Your task to perform on an android device: Go to Reddit.com Image 0: 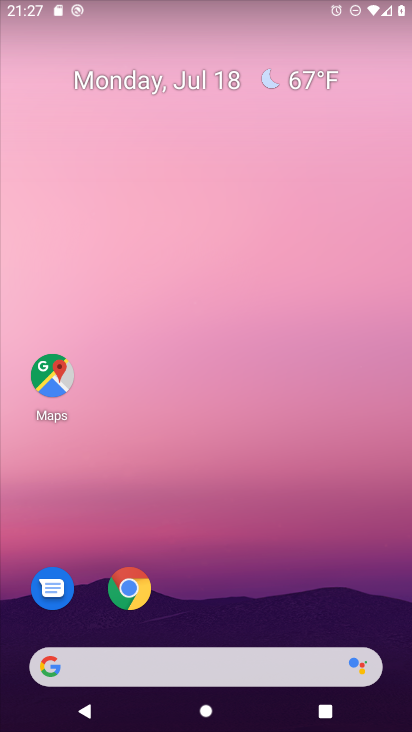
Step 0: click (130, 591)
Your task to perform on an android device: Go to Reddit.com Image 1: 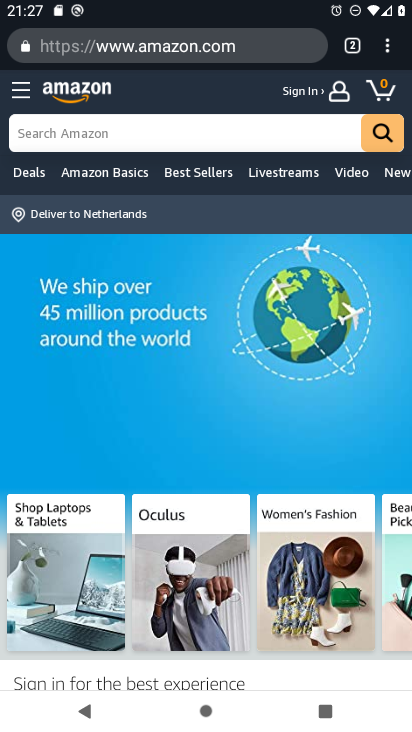
Step 1: click (269, 47)
Your task to perform on an android device: Go to Reddit.com Image 2: 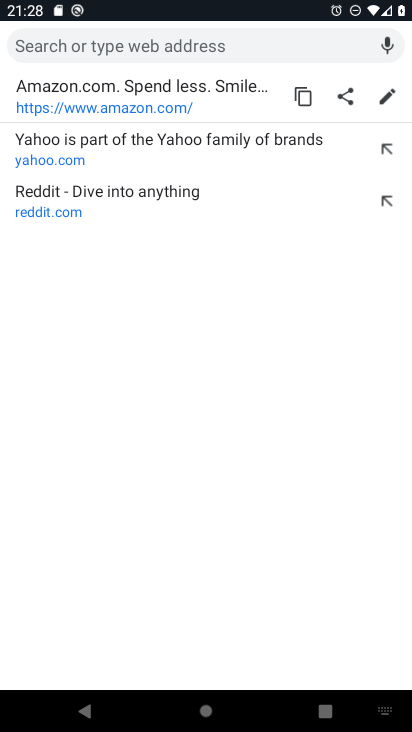
Step 2: type "Reddit.com"
Your task to perform on an android device: Go to Reddit.com Image 3: 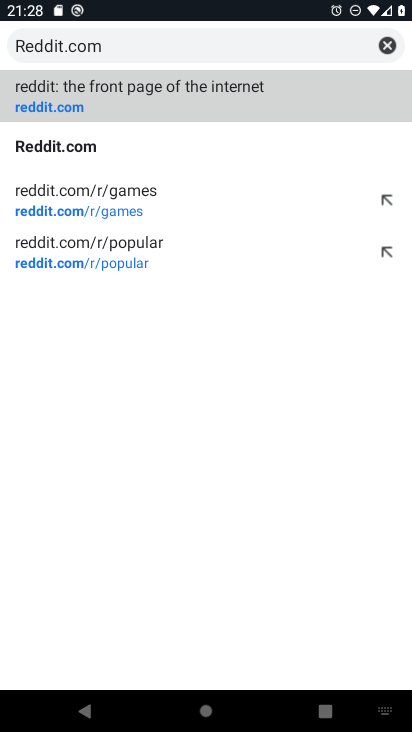
Step 3: click (74, 94)
Your task to perform on an android device: Go to Reddit.com Image 4: 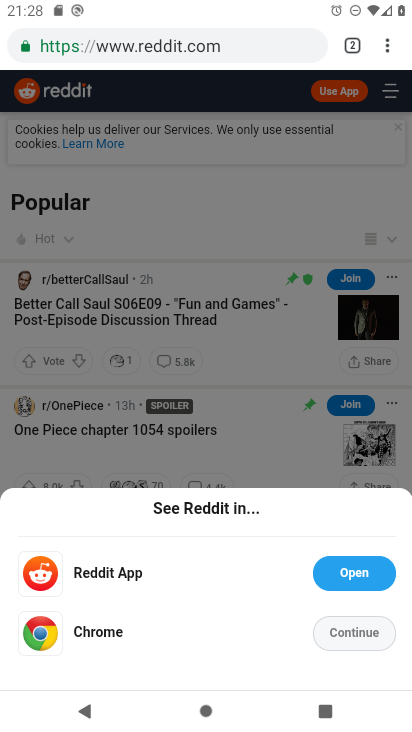
Step 4: task complete